Your task to perform on an android device: Go to eBay Image 0: 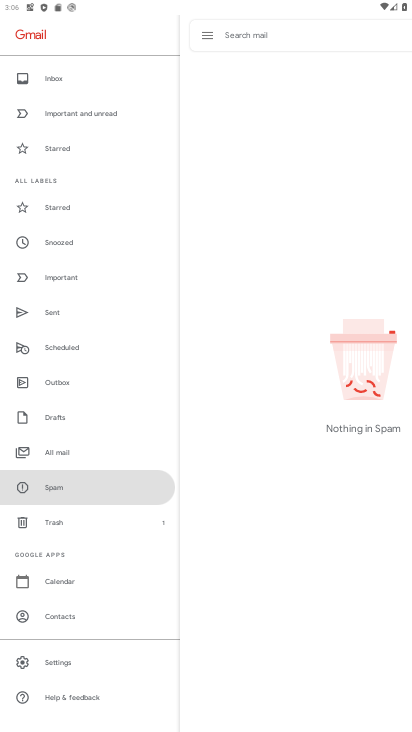
Step 0: press home button
Your task to perform on an android device: Go to eBay Image 1: 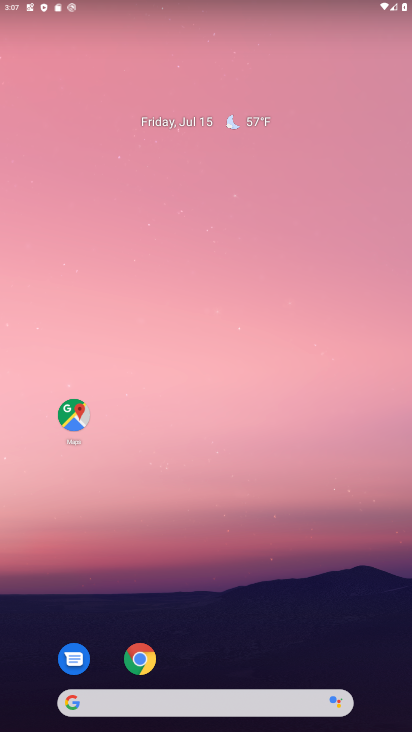
Step 1: click (141, 669)
Your task to perform on an android device: Go to eBay Image 2: 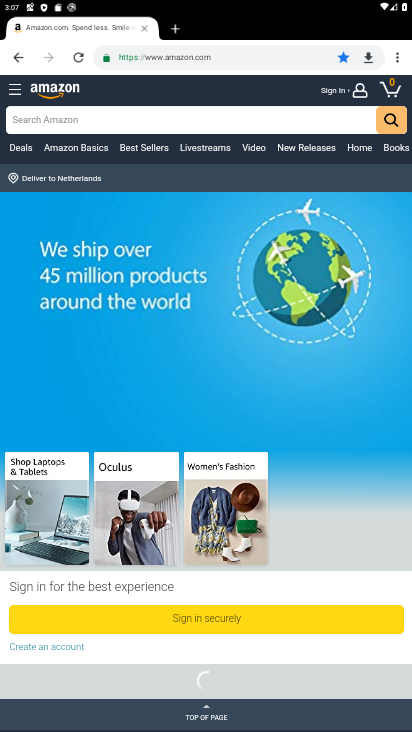
Step 2: click (203, 56)
Your task to perform on an android device: Go to eBay Image 3: 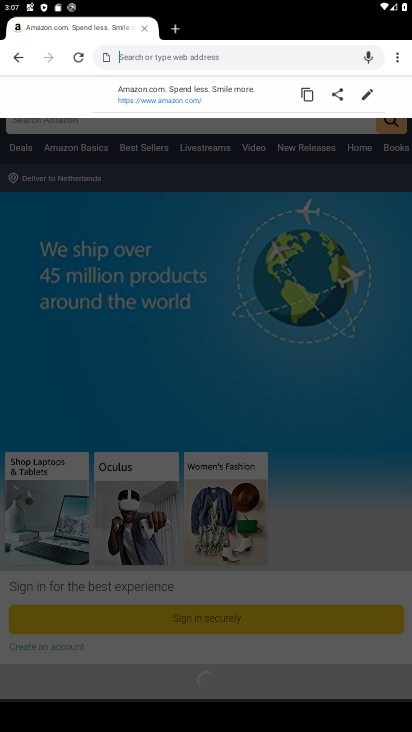
Step 3: type "eBay"
Your task to perform on an android device: Go to eBay Image 4: 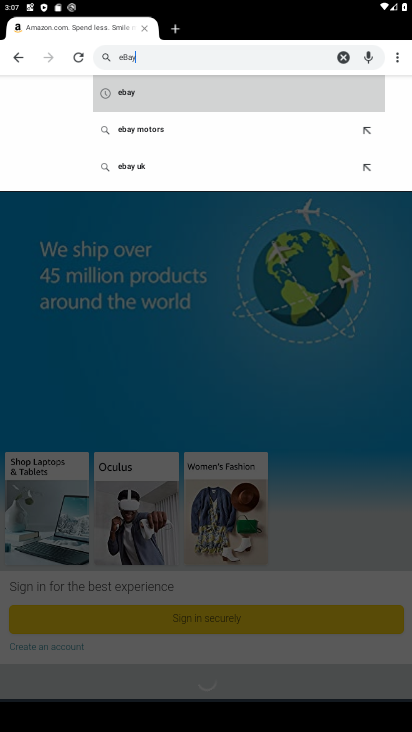
Step 4: click (126, 94)
Your task to perform on an android device: Go to eBay Image 5: 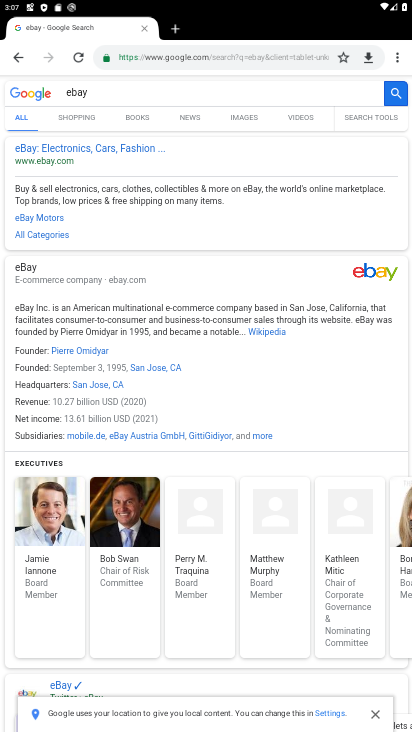
Step 5: task complete